Your task to perform on an android device: turn pop-ups on in chrome Image 0: 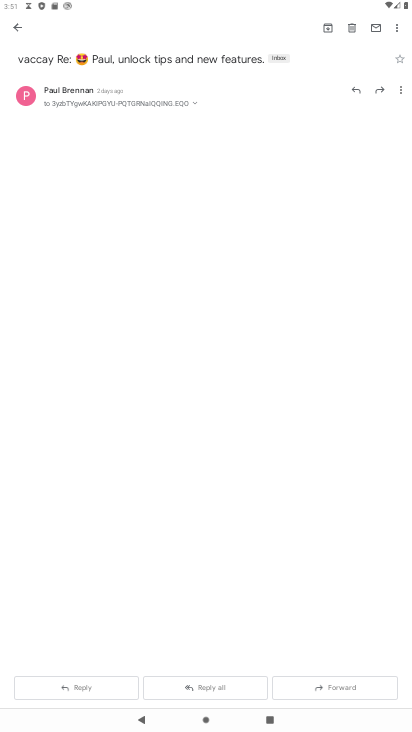
Step 0: press home button
Your task to perform on an android device: turn pop-ups on in chrome Image 1: 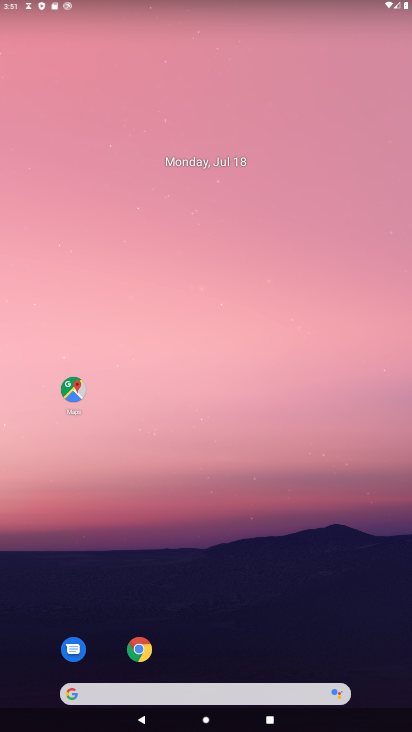
Step 1: click (145, 655)
Your task to perform on an android device: turn pop-ups on in chrome Image 2: 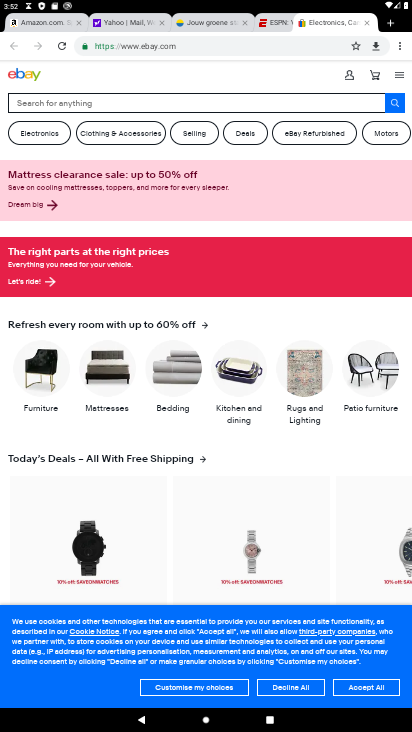
Step 2: drag from (397, 42) to (310, 320)
Your task to perform on an android device: turn pop-ups on in chrome Image 3: 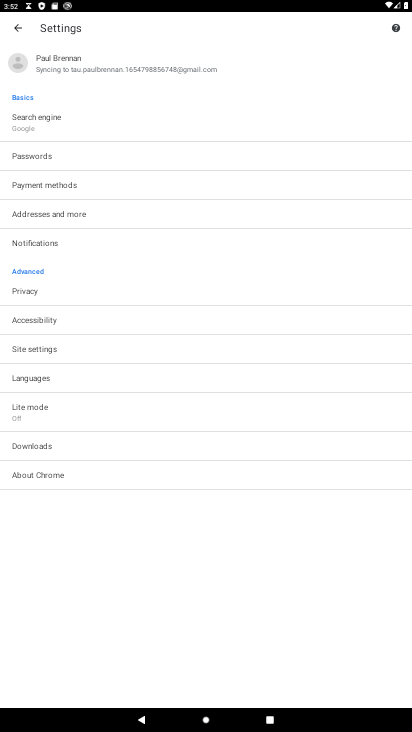
Step 3: click (45, 346)
Your task to perform on an android device: turn pop-ups on in chrome Image 4: 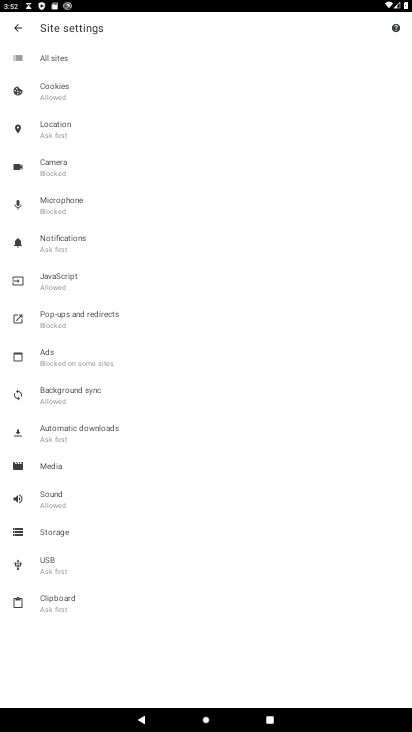
Step 4: click (65, 323)
Your task to perform on an android device: turn pop-ups on in chrome Image 5: 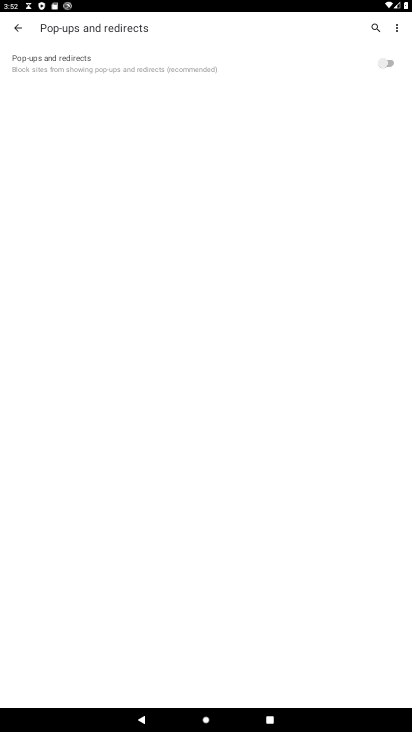
Step 5: click (392, 63)
Your task to perform on an android device: turn pop-ups on in chrome Image 6: 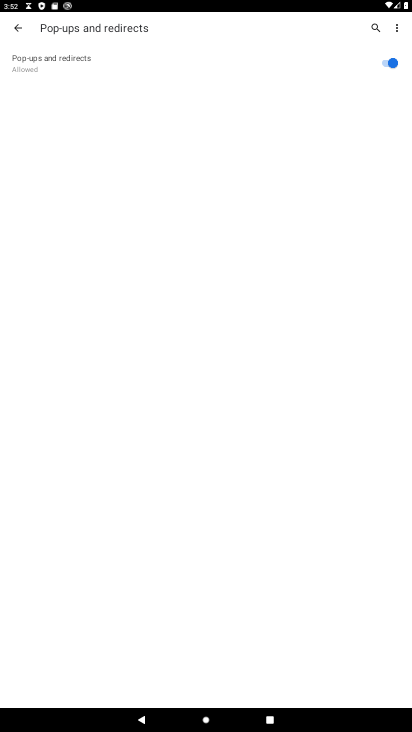
Step 6: task complete